Your task to perform on an android device: turn on notifications settings in the gmail app Image 0: 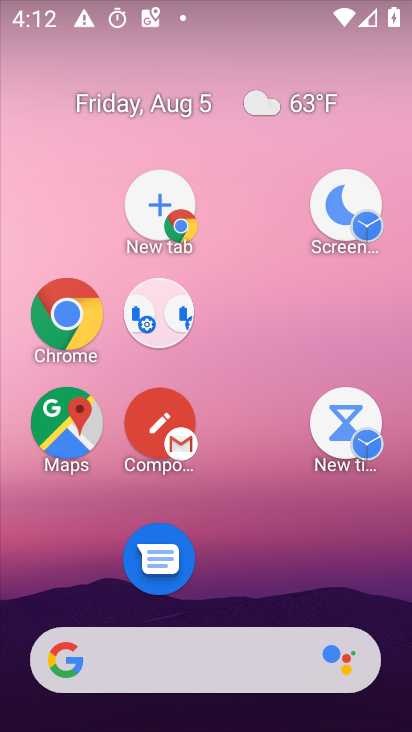
Step 0: drag from (267, 661) to (181, 278)
Your task to perform on an android device: turn on notifications settings in the gmail app Image 1: 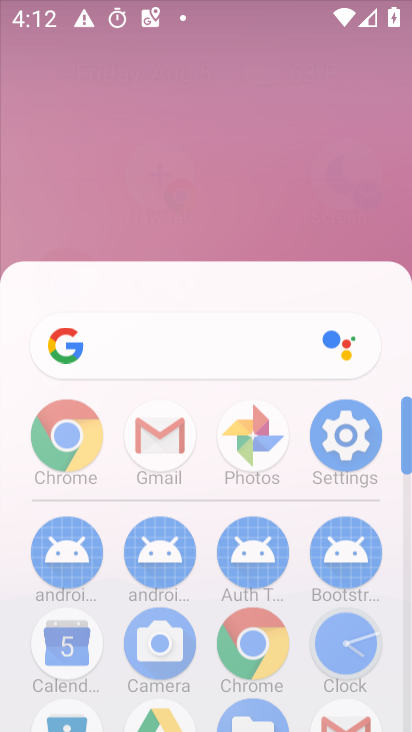
Step 1: drag from (199, 428) to (181, 365)
Your task to perform on an android device: turn on notifications settings in the gmail app Image 2: 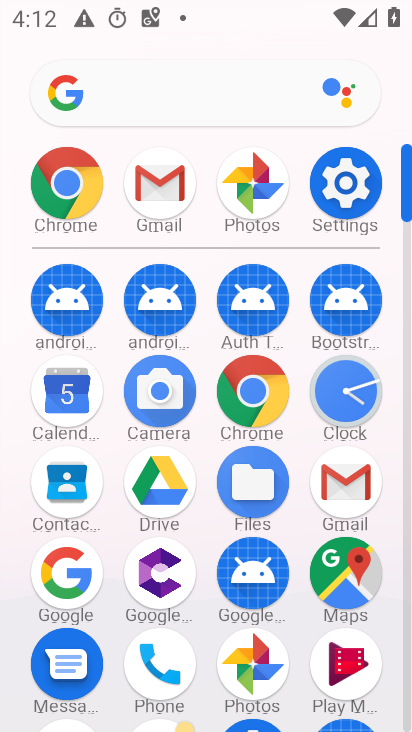
Step 2: click (162, 182)
Your task to perform on an android device: turn on notifications settings in the gmail app Image 3: 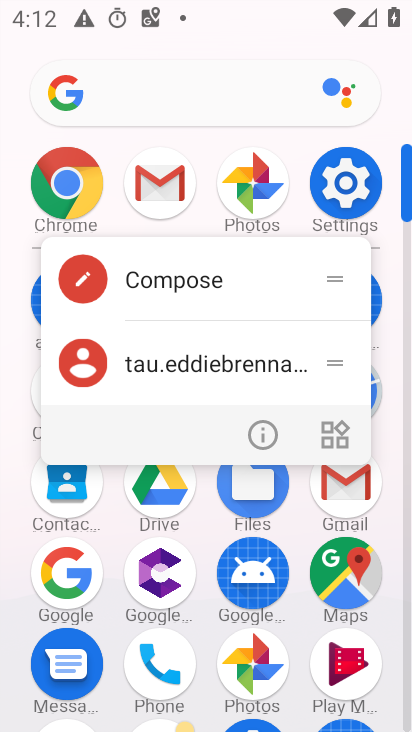
Step 3: click (169, 283)
Your task to perform on an android device: turn on notifications settings in the gmail app Image 4: 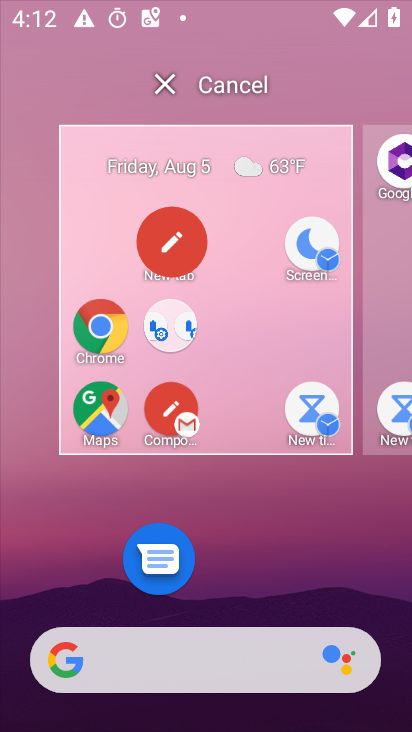
Step 4: click (175, 278)
Your task to perform on an android device: turn on notifications settings in the gmail app Image 5: 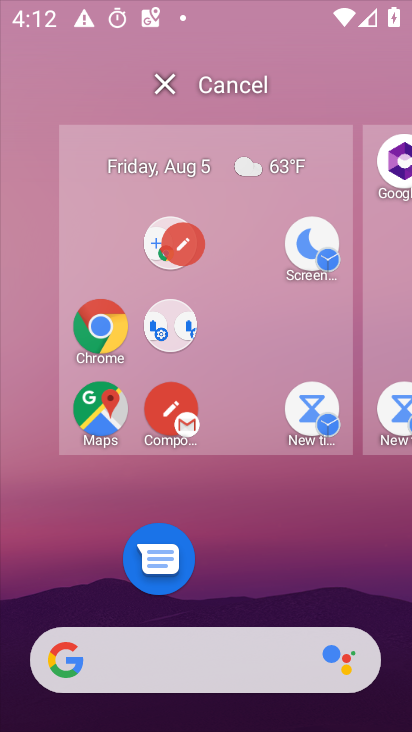
Step 5: click (174, 234)
Your task to perform on an android device: turn on notifications settings in the gmail app Image 6: 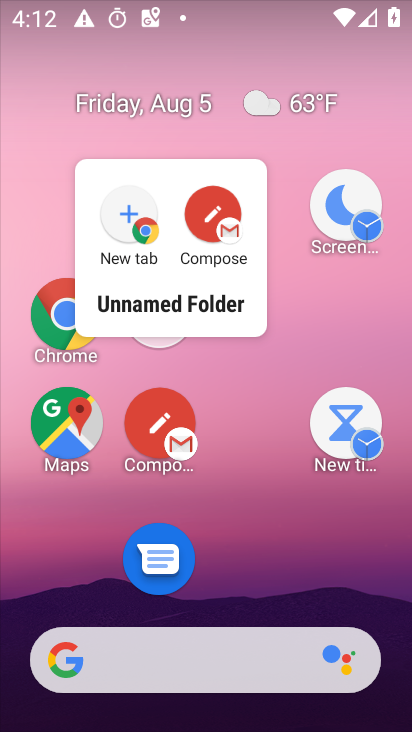
Step 6: drag from (290, 488) to (265, 133)
Your task to perform on an android device: turn on notifications settings in the gmail app Image 7: 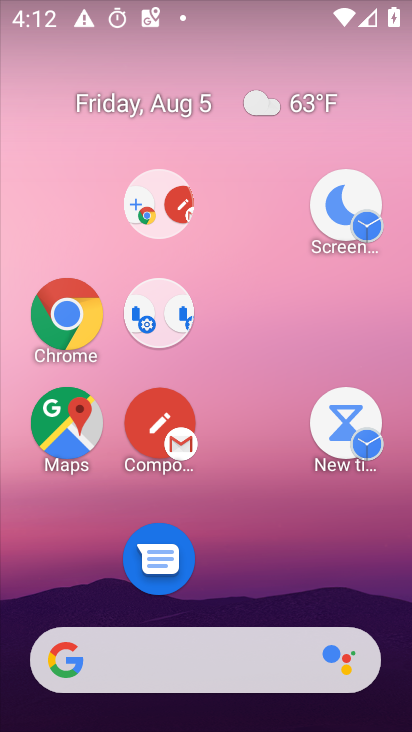
Step 7: drag from (261, 454) to (216, 72)
Your task to perform on an android device: turn on notifications settings in the gmail app Image 8: 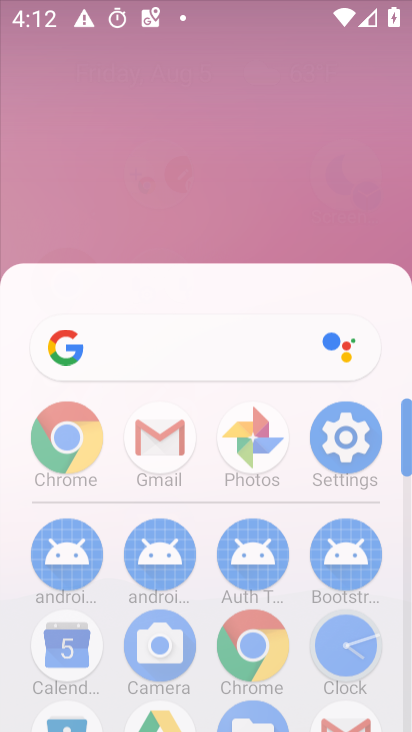
Step 8: drag from (284, 435) to (224, 15)
Your task to perform on an android device: turn on notifications settings in the gmail app Image 9: 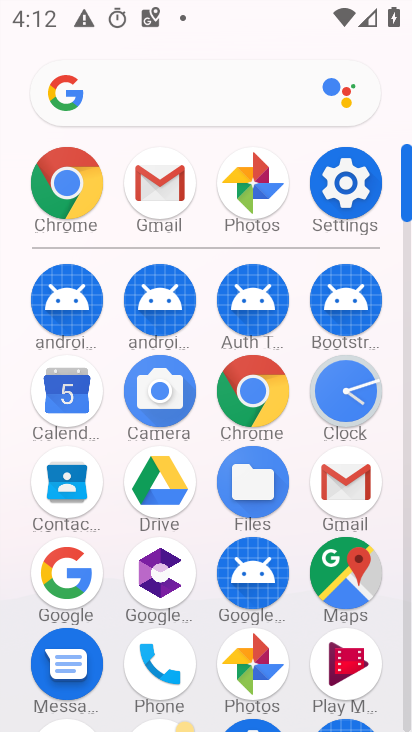
Step 9: click (157, 184)
Your task to perform on an android device: turn on notifications settings in the gmail app Image 10: 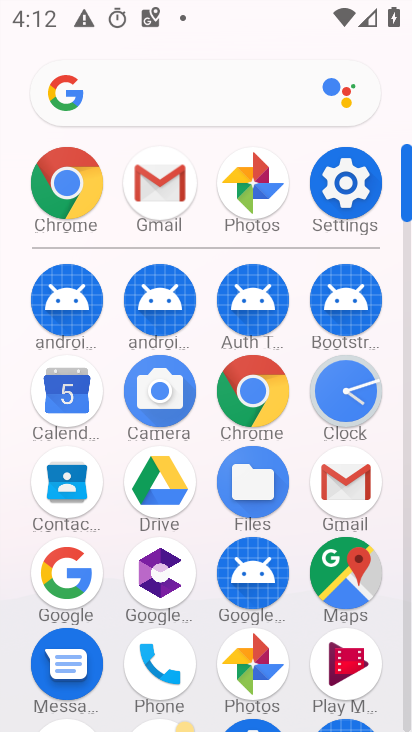
Step 10: click (159, 187)
Your task to perform on an android device: turn on notifications settings in the gmail app Image 11: 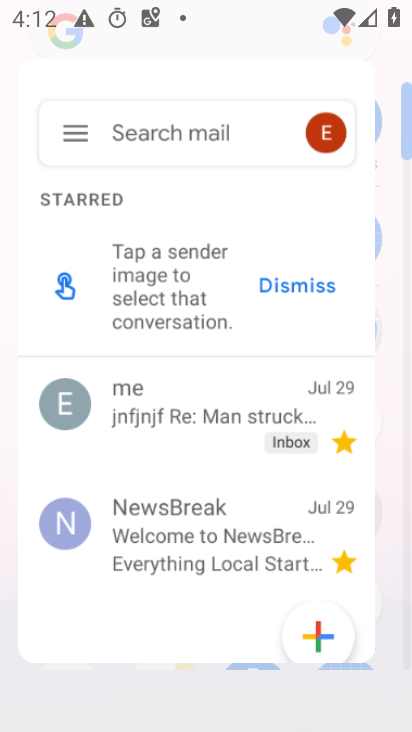
Step 11: click (160, 187)
Your task to perform on an android device: turn on notifications settings in the gmail app Image 12: 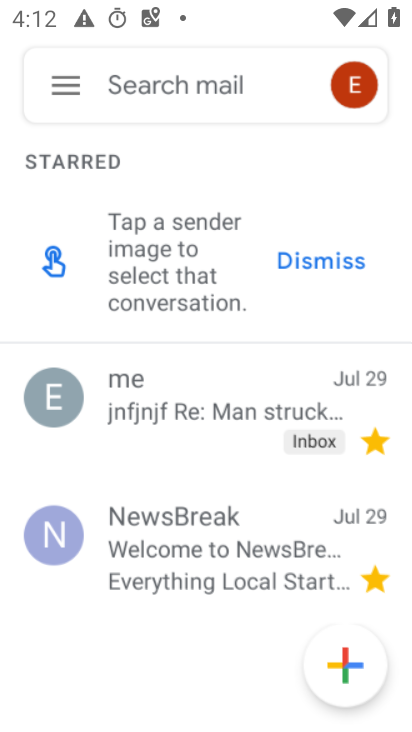
Step 12: click (160, 187)
Your task to perform on an android device: turn on notifications settings in the gmail app Image 13: 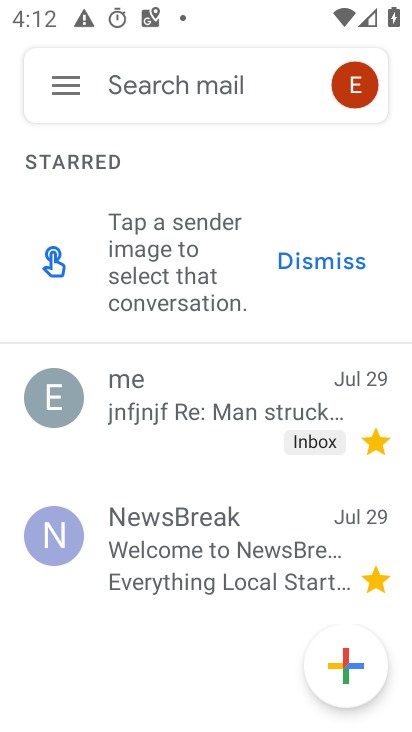
Step 13: drag from (73, 71) to (342, 669)
Your task to perform on an android device: turn on notifications settings in the gmail app Image 14: 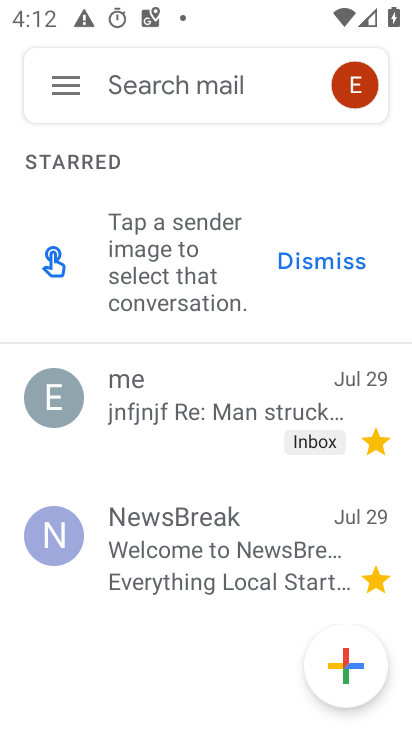
Step 14: click (55, 94)
Your task to perform on an android device: turn on notifications settings in the gmail app Image 15: 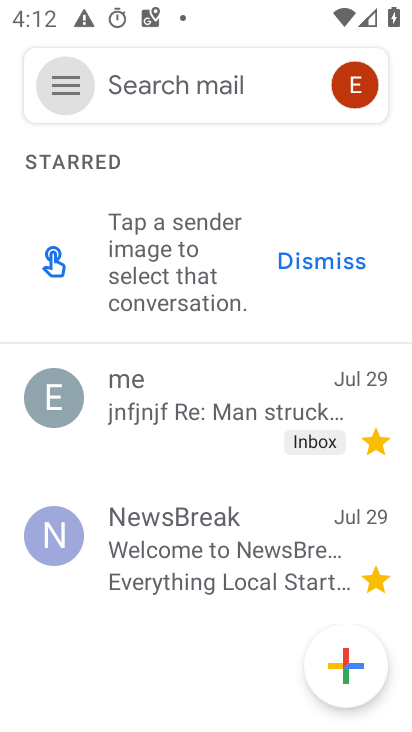
Step 15: click (60, 94)
Your task to perform on an android device: turn on notifications settings in the gmail app Image 16: 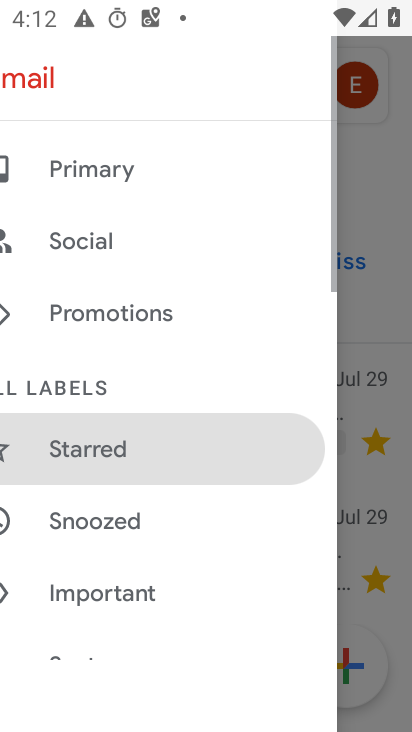
Step 16: click (61, 94)
Your task to perform on an android device: turn on notifications settings in the gmail app Image 17: 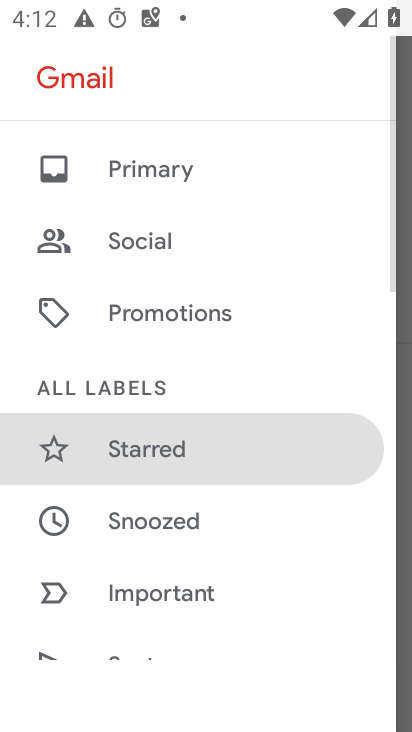
Step 17: drag from (159, 515) to (118, 135)
Your task to perform on an android device: turn on notifications settings in the gmail app Image 18: 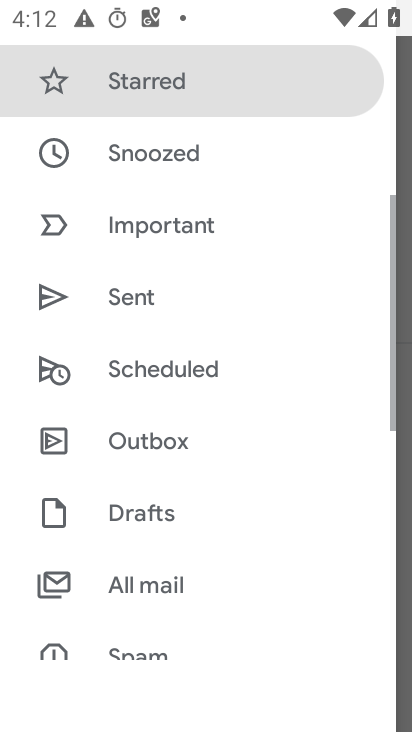
Step 18: drag from (136, 422) to (114, 215)
Your task to perform on an android device: turn on notifications settings in the gmail app Image 19: 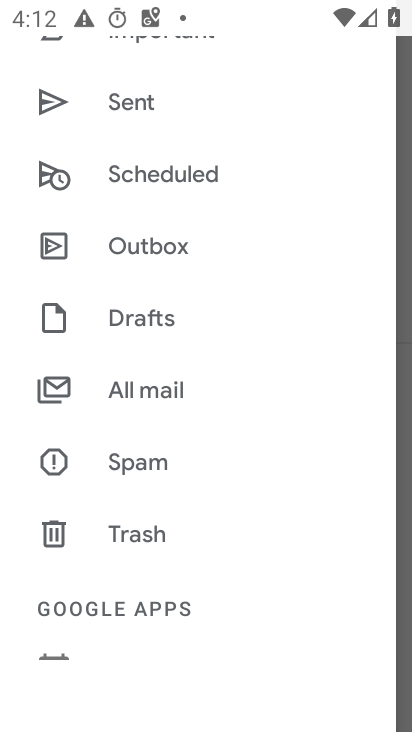
Step 19: drag from (148, 526) to (116, 188)
Your task to perform on an android device: turn on notifications settings in the gmail app Image 20: 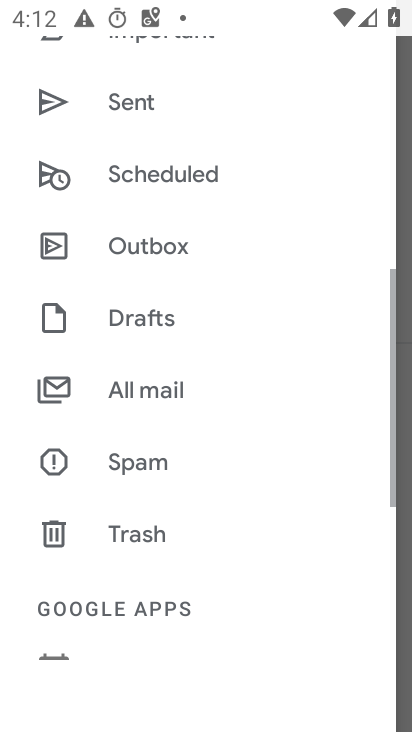
Step 20: drag from (117, 393) to (124, 129)
Your task to perform on an android device: turn on notifications settings in the gmail app Image 21: 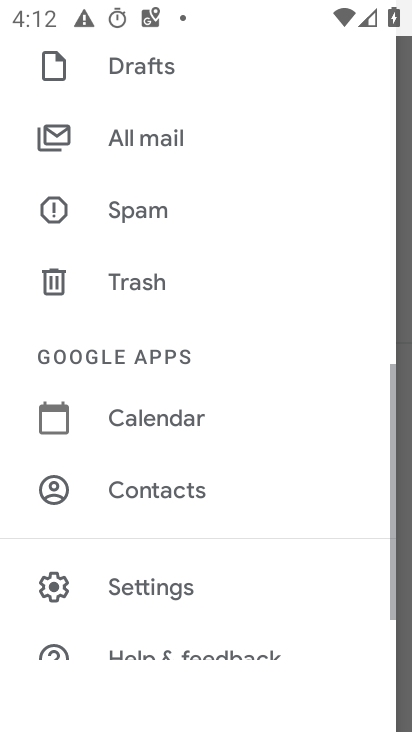
Step 21: drag from (211, 394) to (169, 93)
Your task to perform on an android device: turn on notifications settings in the gmail app Image 22: 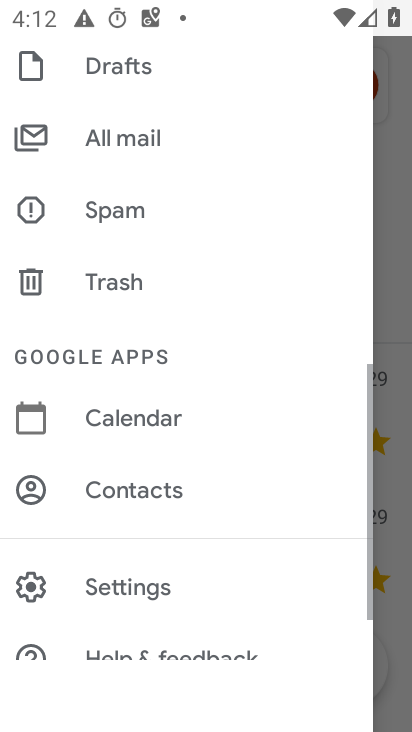
Step 22: drag from (185, 496) to (179, 205)
Your task to perform on an android device: turn on notifications settings in the gmail app Image 23: 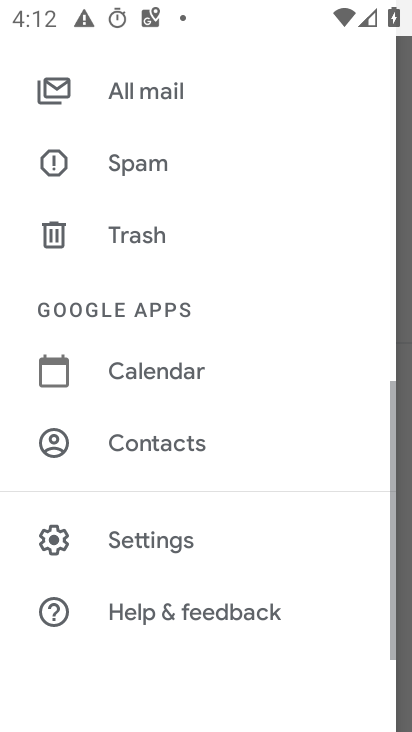
Step 23: click (154, 543)
Your task to perform on an android device: turn on notifications settings in the gmail app Image 24: 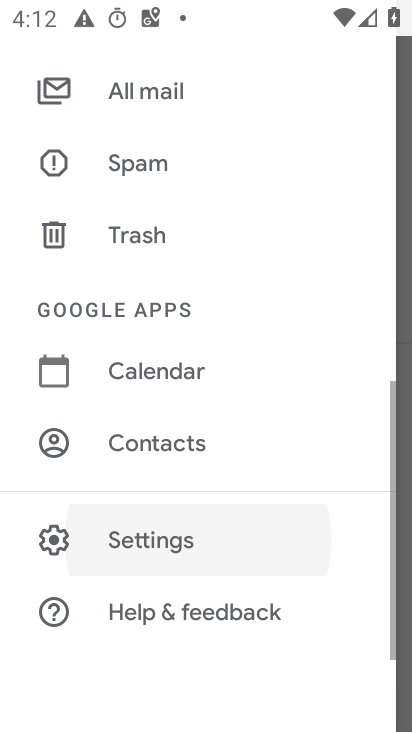
Step 24: click (153, 544)
Your task to perform on an android device: turn on notifications settings in the gmail app Image 25: 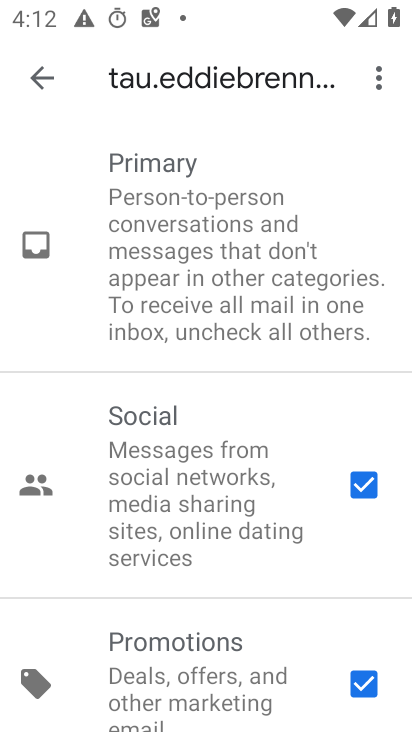
Step 25: drag from (149, 421) to (112, 154)
Your task to perform on an android device: turn on notifications settings in the gmail app Image 26: 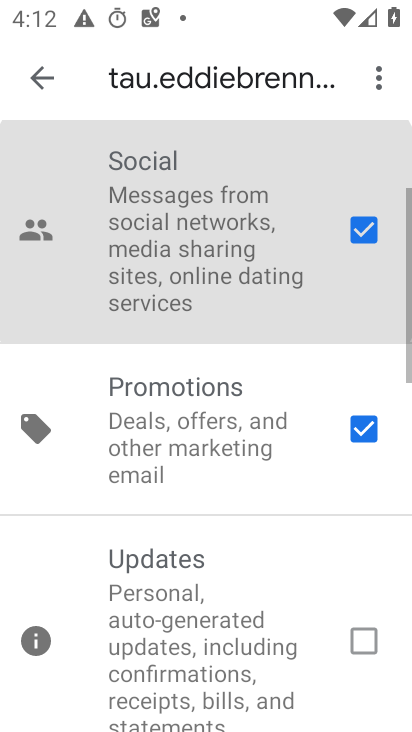
Step 26: drag from (92, 440) to (93, 83)
Your task to perform on an android device: turn on notifications settings in the gmail app Image 27: 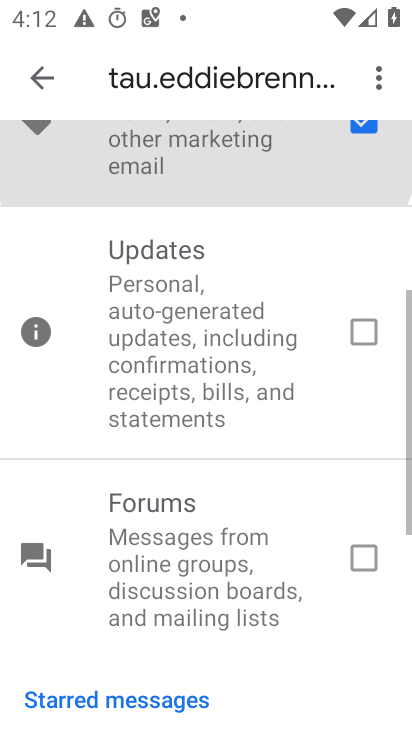
Step 27: drag from (204, 307) to (215, 170)
Your task to perform on an android device: turn on notifications settings in the gmail app Image 28: 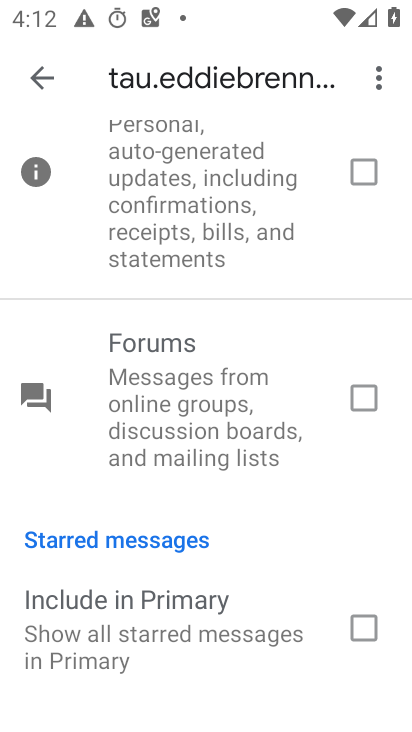
Step 28: drag from (189, 509) to (192, 267)
Your task to perform on an android device: turn on notifications settings in the gmail app Image 29: 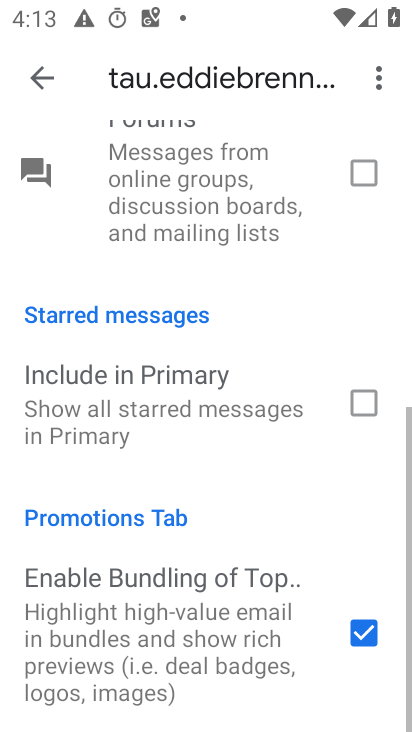
Step 29: drag from (181, 444) to (144, 174)
Your task to perform on an android device: turn on notifications settings in the gmail app Image 30: 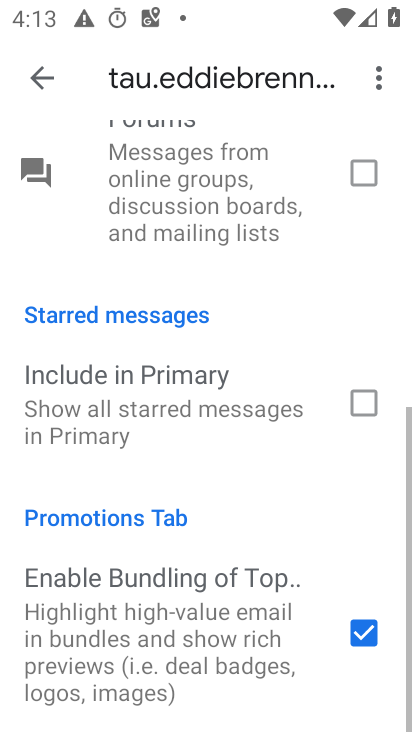
Step 30: drag from (144, 498) to (91, 115)
Your task to perform on an android device: turn on notifications settings in the gmail app Image 31: 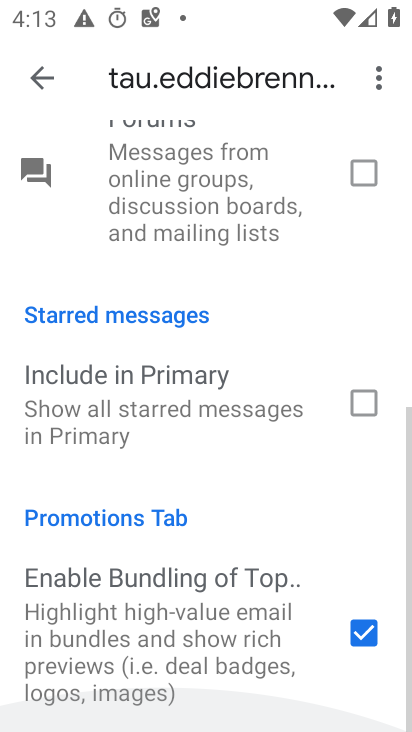
Step 31: drag from (183, 485) to (147, 184)
Your task to perform on an android device: turn on notifications settings in the gmail app Image 32: 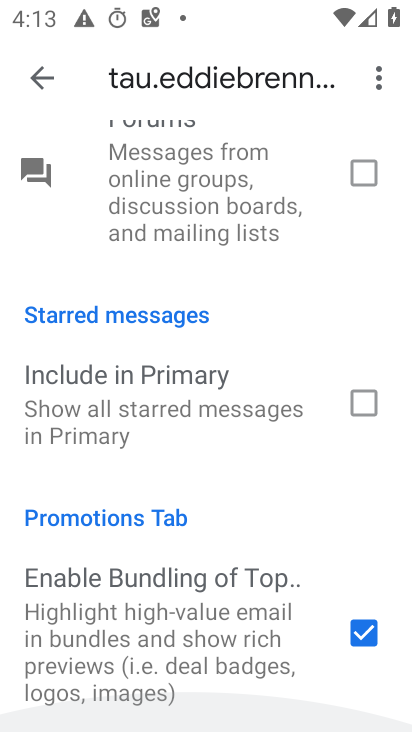
Step 32: drag from (175, 479) to (138, 187)
Your task to perform on an android device: turn on notifications settings in the gmail app Image 33: 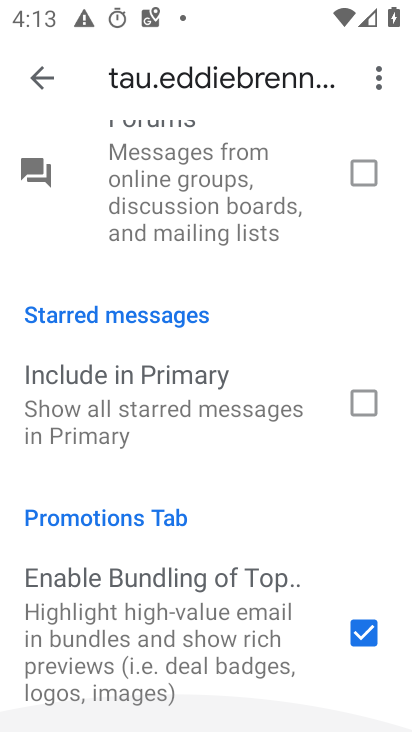
Step 33: click (27, 65)
Your task to perform on an android device: turn on notifications settings in the gmail app Image 34: 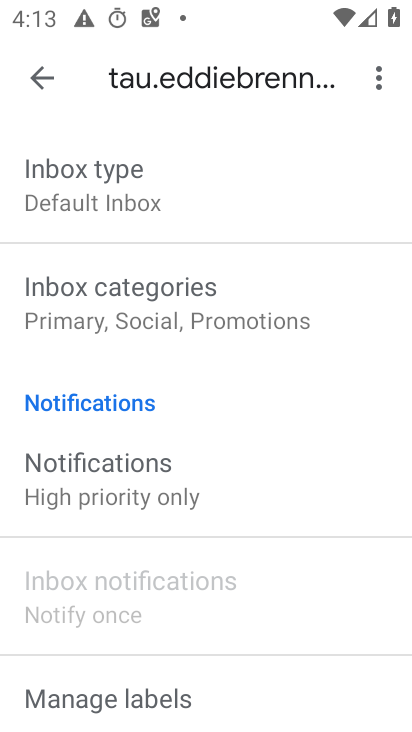
Step 34: drag from (91, 235) to (135, 593)
Your task to perform on an android device: turn on notifications settings in the gmail app Image 35: 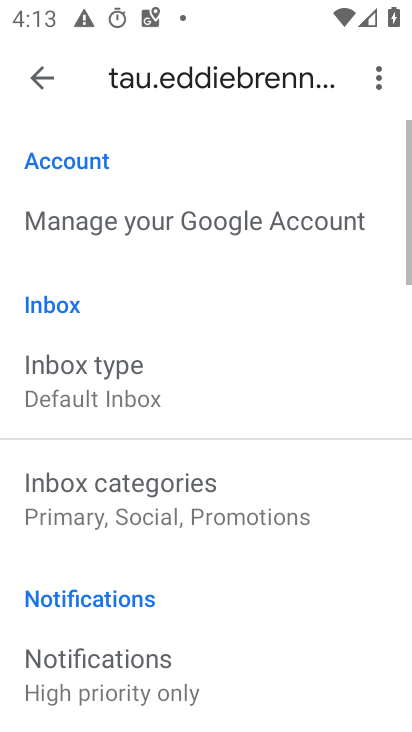
Step 35: drag from (103, 290) to (145, 576)
Your task to perform on an android device: turn on notifications settings in the gmail app Image 36: 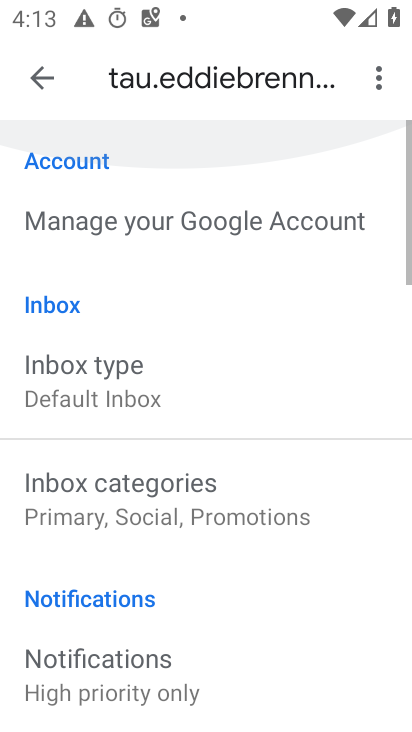
Step 36: drag from (130, 346) to (174, 572)
Your task to perform on an android device: turn on notifications settings in the gmail app Image 37: 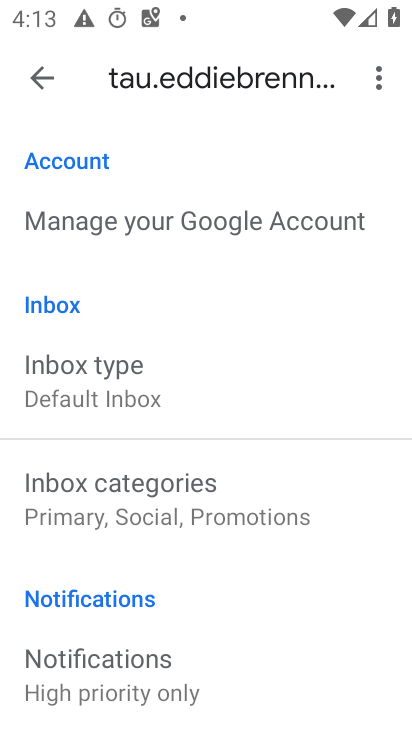
Step 37: drag from (90, 597) to (48, 382)
Your task to perform on an android device: turn on notifications settings in the gmail app Image 38: 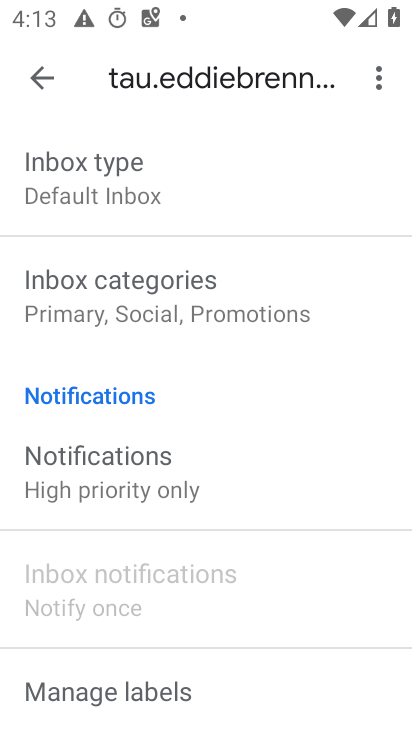
Step 38: click (90, 481)
Your task to perform on an android device: turn on notifications settings in the gmail app Image 39: 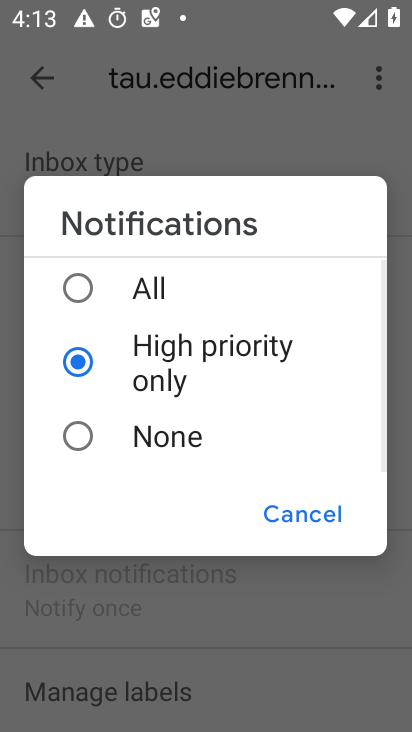
Step 39: click (70, 286)
Your task to perform on an android device: turn on notifications settings in the gmail app Image 40: 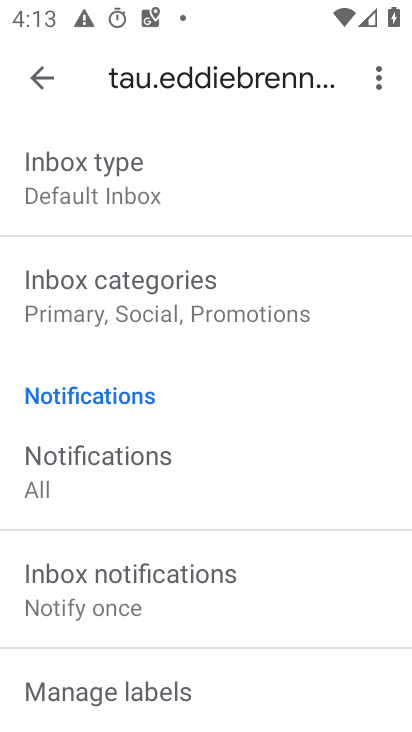
Step 40: task complete